Your task to perform on an android device: set default search engine in the chrome app Image 0: 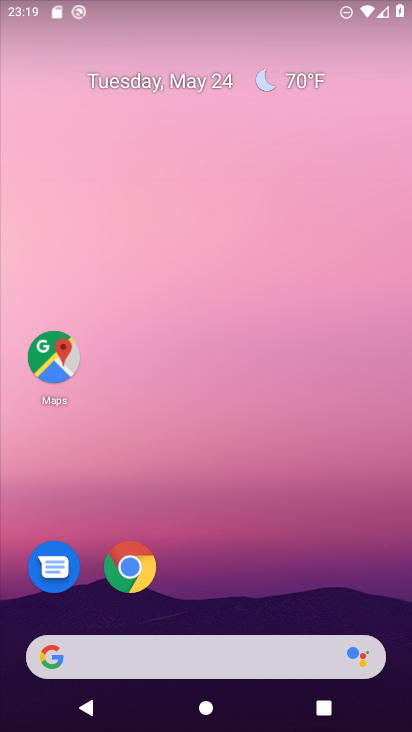
Step 0: click (134, 563)
Your task to perform on an android device: set default search engine in the chrome app Image 1: 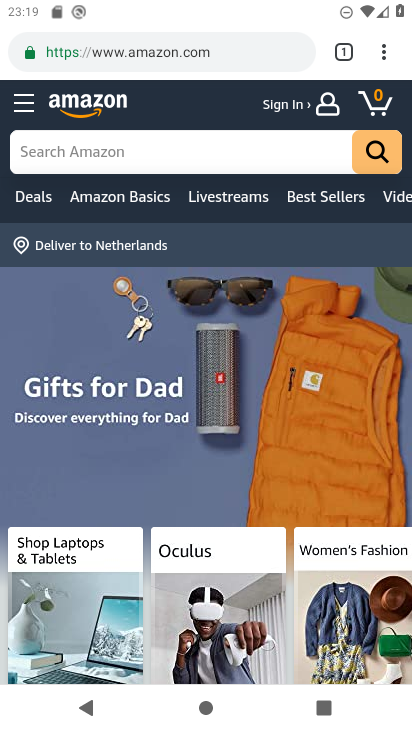
Step 1: click (381, 55)
Your task to perform on an android device: set default search engine in the chrome app Image 2: 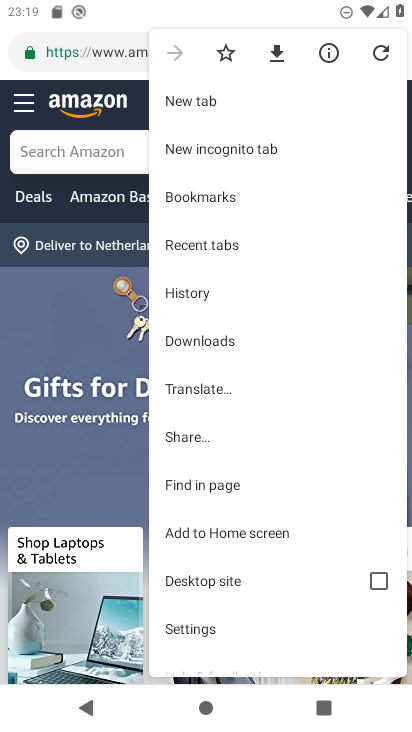
Step 2: click (239, 625)
Your task to perform on an android device: set default search engine in the chrome app Image 3: 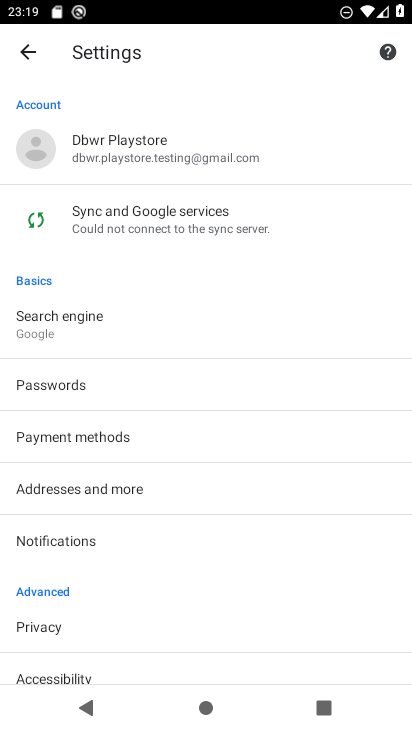
Step 3: click (123, 324)
Your task to perform on an android device: set default search engine in the chrome app Image 4: 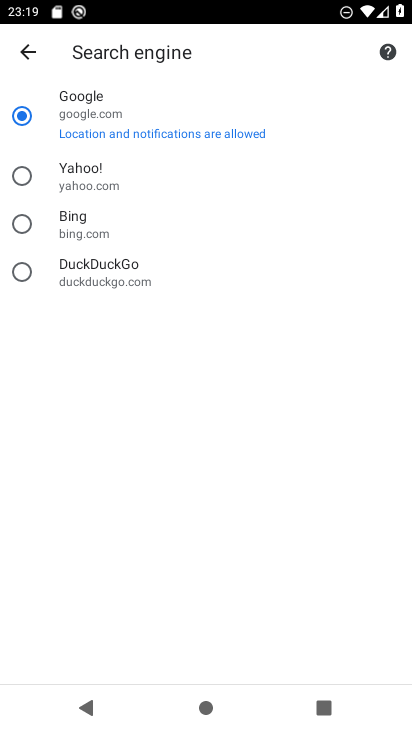
Step 4: click (178, 103)
Your task to perform on an android device: set default search engine in the chrome app Image 5: 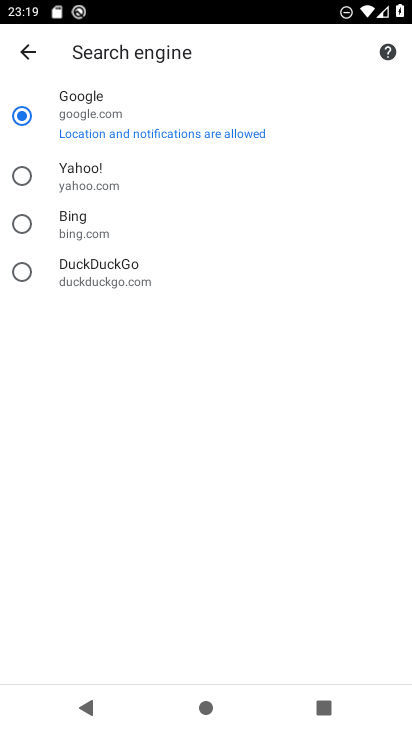
Step 5: task complete